Your task to perform on an android device: open the mobile data screen to see how much data has been used Image 0: 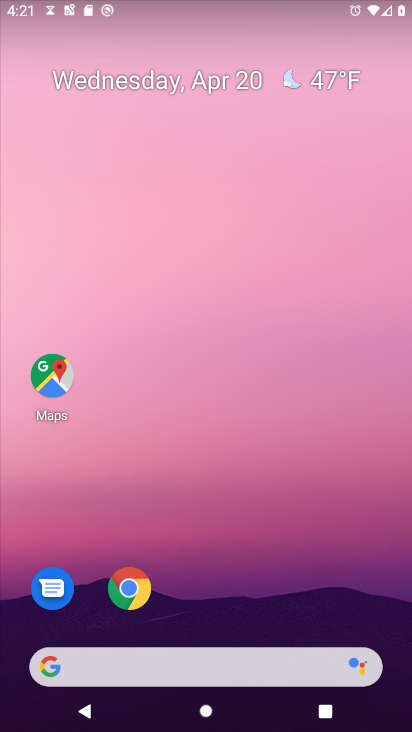
Step 0: drag from (233, 596) to (200, 166)
Your task to perform on an android device: open the mobile data screen to see how much data has been used Image 1: 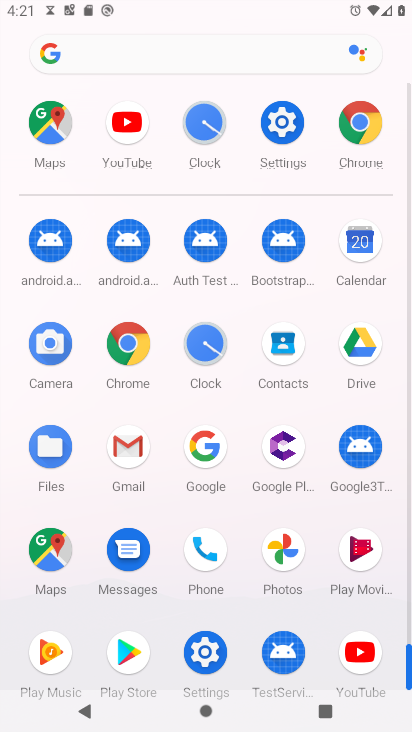
Step 1: click (271, 135)
Your task to perform on an android device: open the mobile data screen to see how much data has been used Image 2: 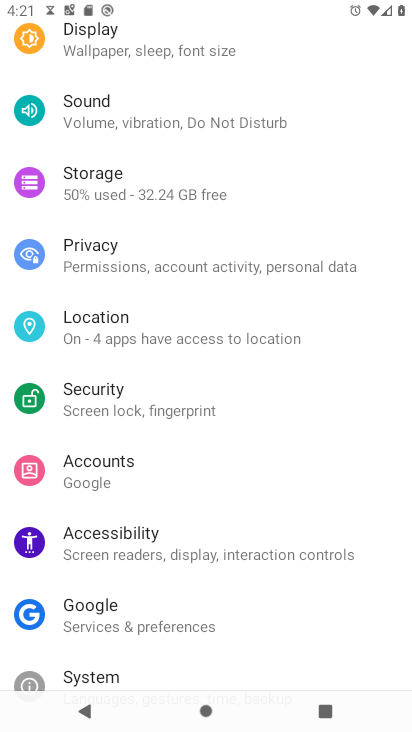
Step 2: drag from (177, 311) to (243, 425)
Your task to perform on an android device: open the mobile data screen to see how much data has been used Image 3: 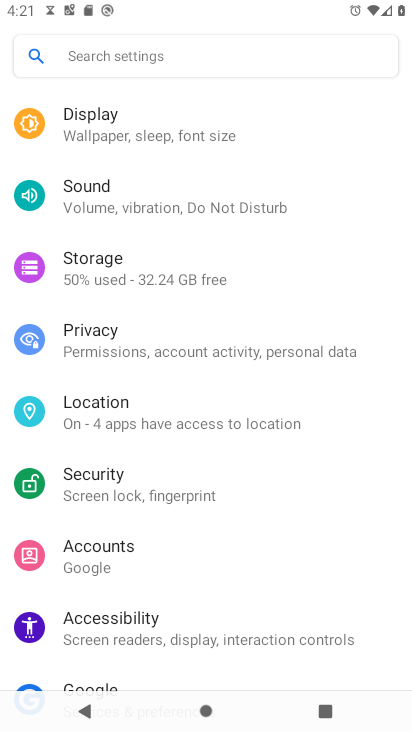
Step 3: drag from (207, 312) to (241, 418)
Your task to perform on an android device: open the mobile data screen to see how much data has been used Image 4: 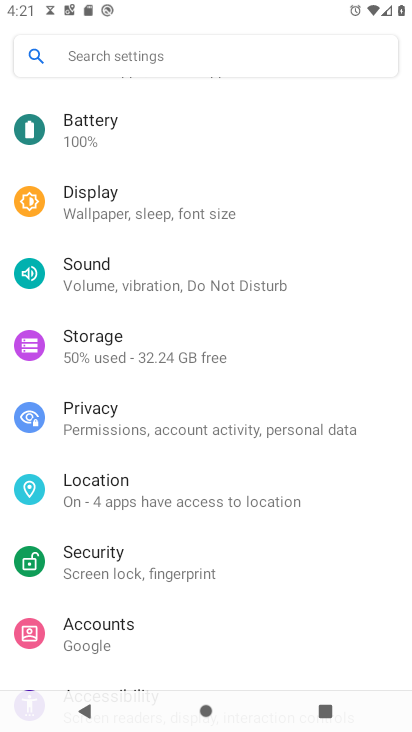
Step 4: drag from (205, 320) to (233, 413)
Your task to perform on an android device: open the mobile data screen to see how much data has been used Image 5: 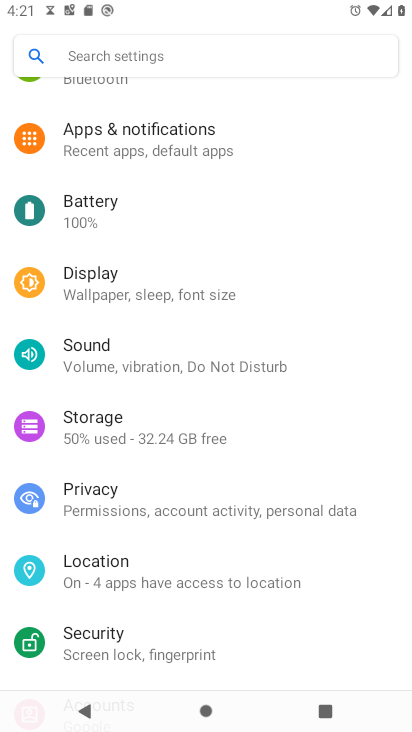
Step 5: drag from (210, 342) to (234, 422)
Your task to perform on an android device: open the mobile data screen to see how much data has been used Image 6: 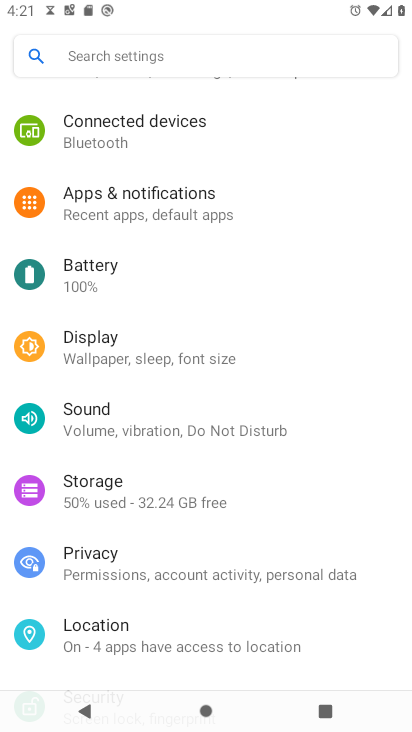
Step 6: drag from (209, 338) to (232, 440)
Your task to perform on an android device: open the mobile data screen to see how much data has been used Image 7: 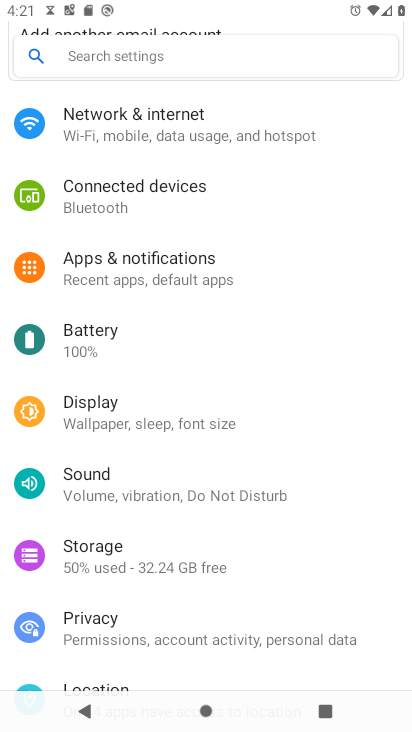
Step 7: click (182, 132)
Your task to perform on an android device: open the mobile data screen to see how much data has been used Image 8: 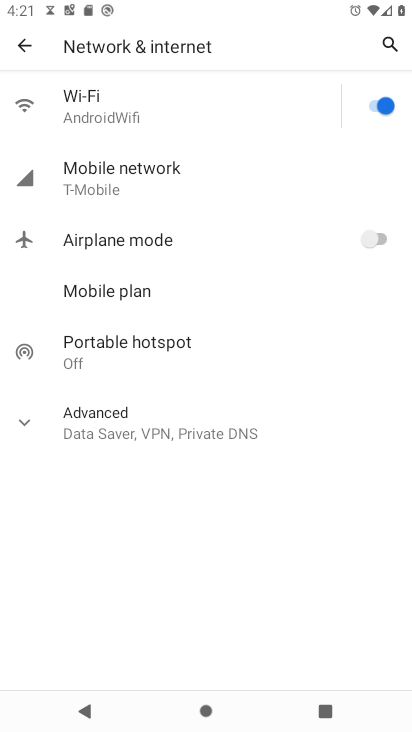
Step 8: click (135, 194)
Your task to perform on an android device: open the mobile data screen to see how much data has been used Image 9: 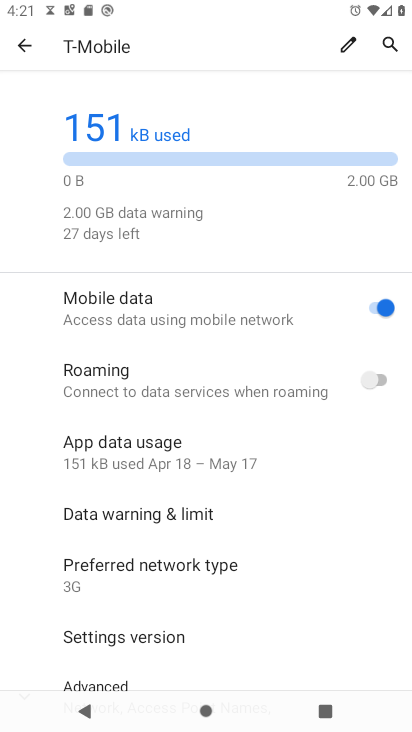
Step 9: drag from (151, 506) to (172, 413)
Your task to perform on an android device: open the mobile data screen to see how much data has been used Image 10: 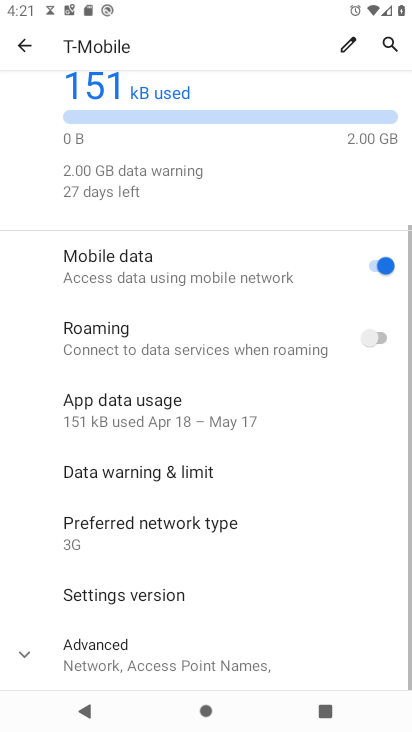
Step 10: click (173, 414)
Your task to perform on an android device: open the mobile data screen to see how much data has been used Image 11: 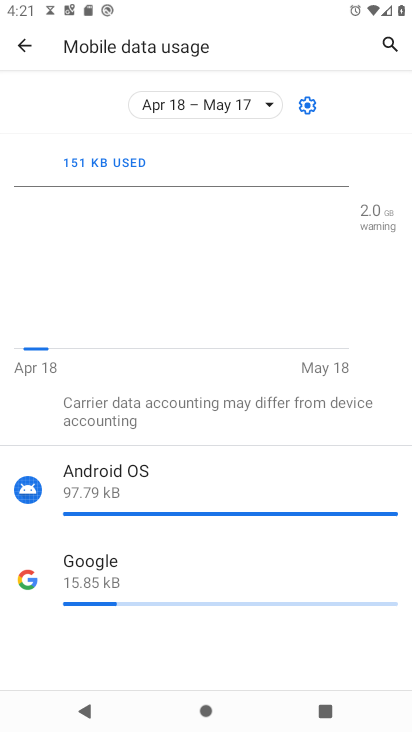
Step 11: task complete